Your task to perform on an android device: Open network settings Image 0: 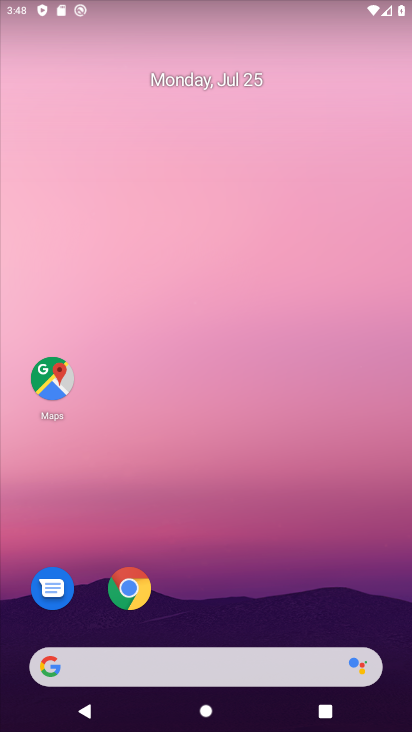
Step 0: drag from (318, 7) to (352, 341)
Your task to perform on an android device: Open network settings Image 1: 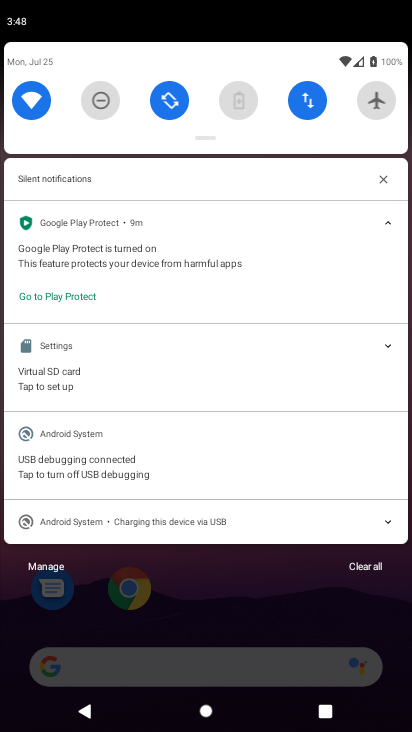
Step 1: click (320, 106)
Your task to perform on an android device: Open network settings Image 2: 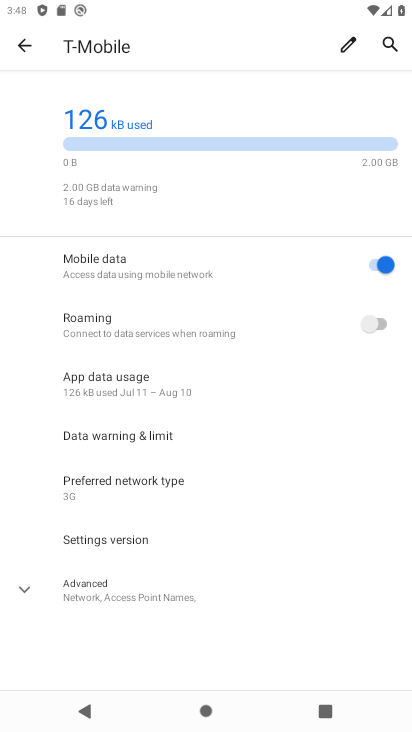
Step 2: task complete